Your task to perform on an android device: clear all cookies in the chrome app Image 0: 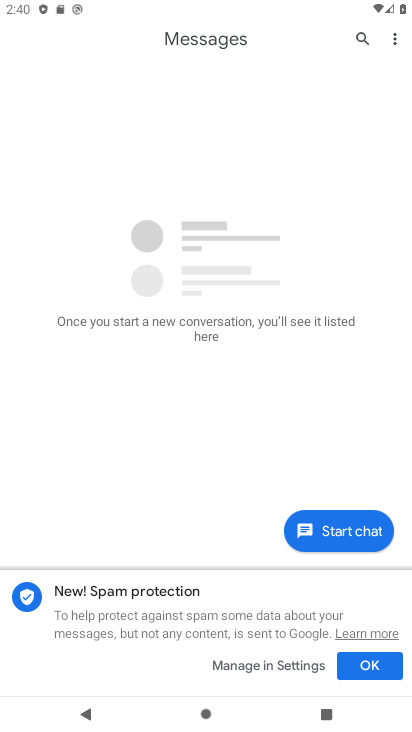
Step 0: press home button
Your task to perform on an android device: clear all cookies in the chrome app Image 1: 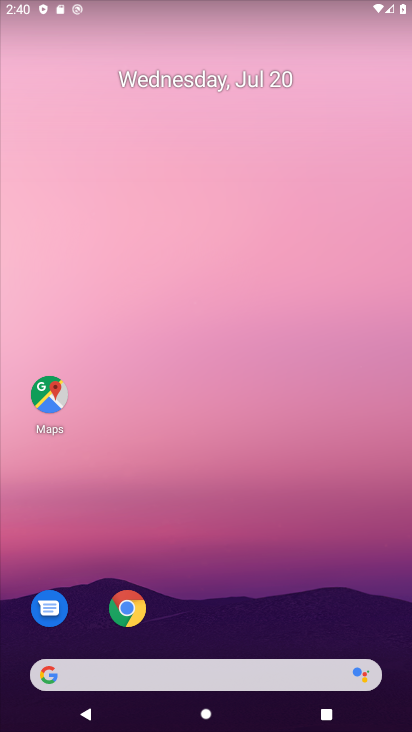
Step 1: drag from (288, 584) to (255, 51)
Your task to perform on an android device: clear all cookies in the chrome app Image 2: 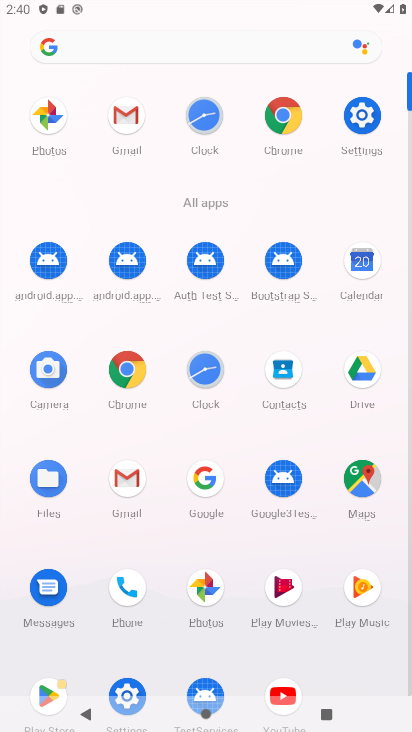
Step 2: click (279, 110)
Your task to perform on an android device: clear all cookies in the chrome app Image 3: 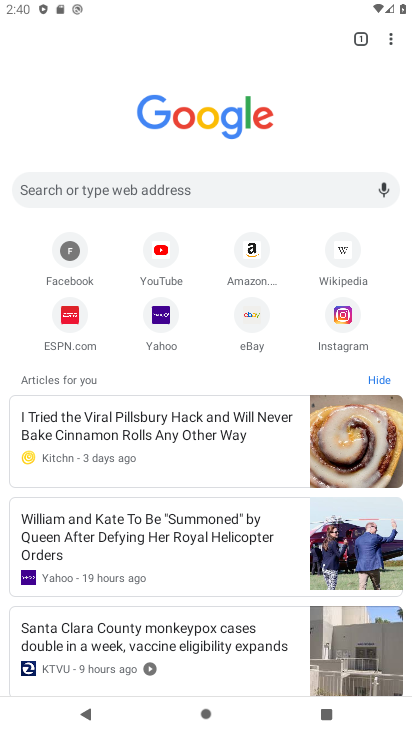
Step 3: drag from (393, 33) to (277, 225)
Your task to perform on an android device: clear all cookies in the chrome app Image 4: 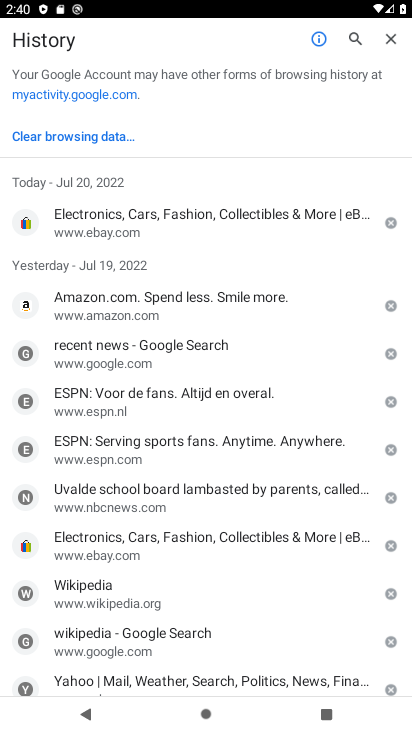
Step 4: click (103, 137)
Your task to perform on an android device: clear all cookies in the chrome app Image 5: 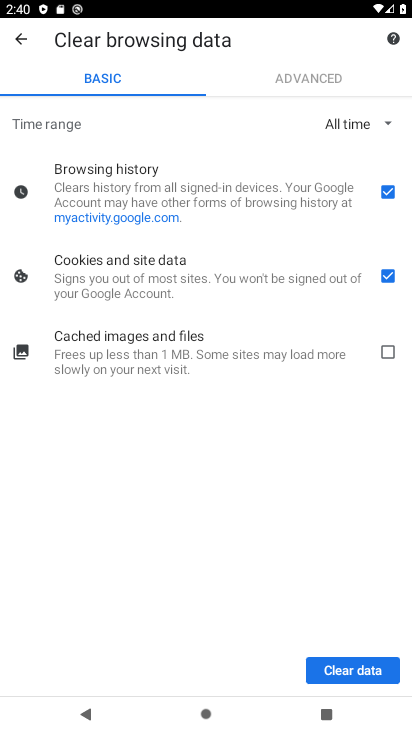
Step 5: click (384, 342)
Your task to perform on an android device: clear all cookies in the chrome app Image 6: 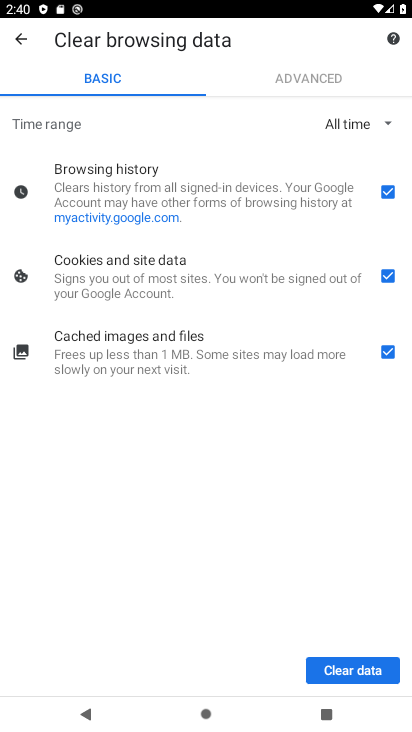
Step 6: click (358, 672)
Your task to perform on an android device: clear all cookies in the chrome app Image 7: 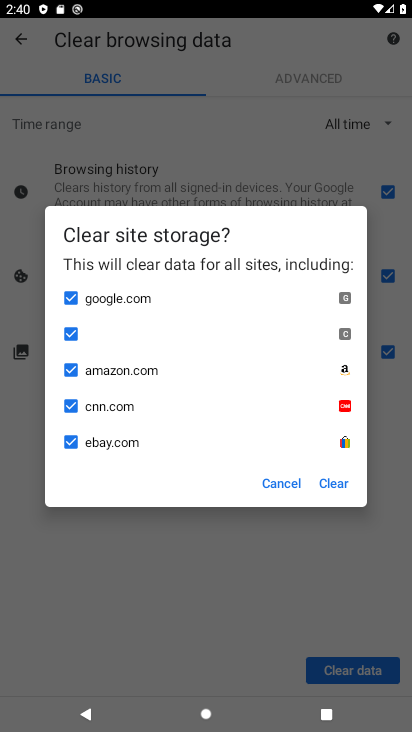
Step 7: click (338, 484)
Your task to perform on an android device: clear all cookies in the chrome app Image 8: 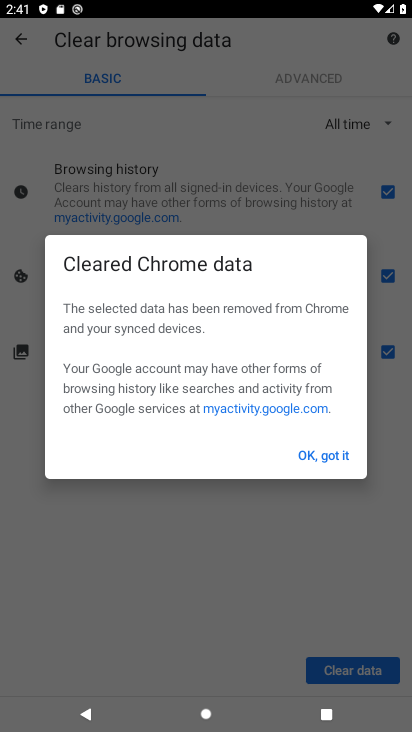
Step 8: task complete